Your task to perform on an android device: Add logitech g pro to the cart on amazon, then select checkout. Image 0: 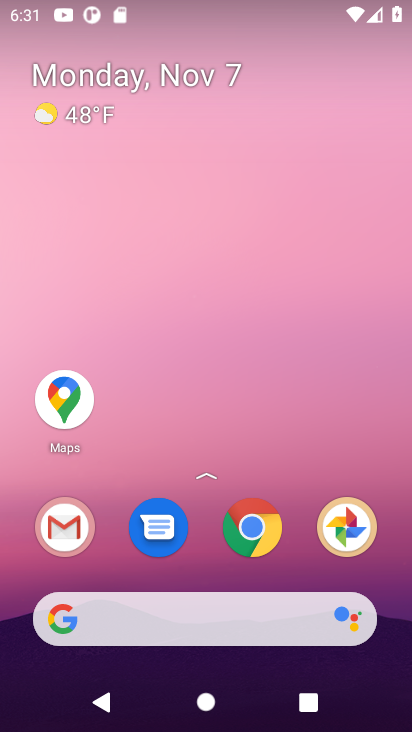
Step 0: click (244, 513)
Your task to perform on an android device: Add logitech g pro to the cart on amazon, then select checkout. Image 1: 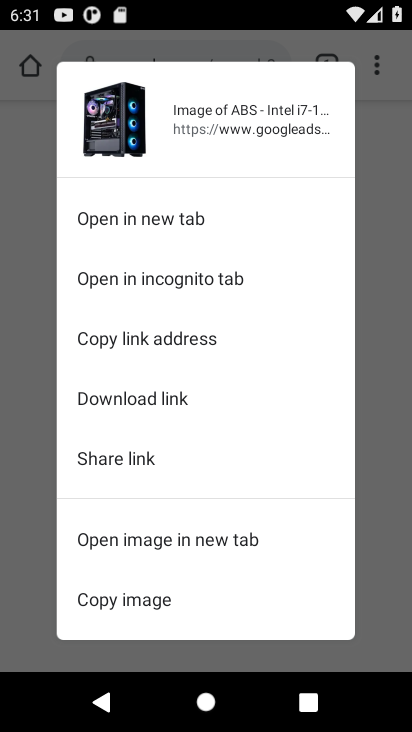
Step 1: click (35, 165)
Your task to perform on an android device: Add logitech g pro to the cart on amazon, then select checkout. Image 2: 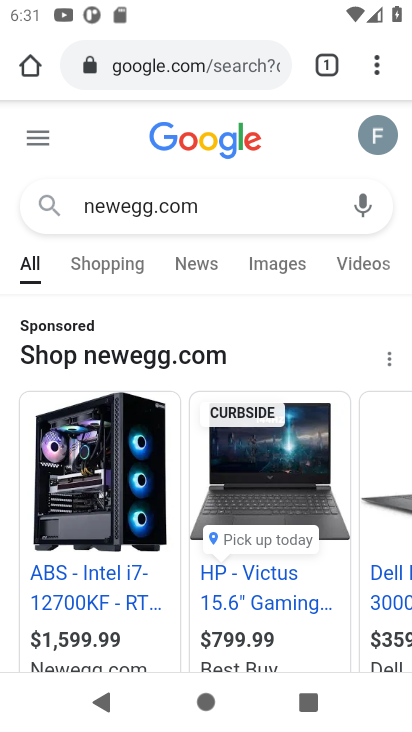
Step 2: click (179, 52)
Your task to perform on an android device: Add logitech g pro to the cart on amazon, then select checkout. Image 3: 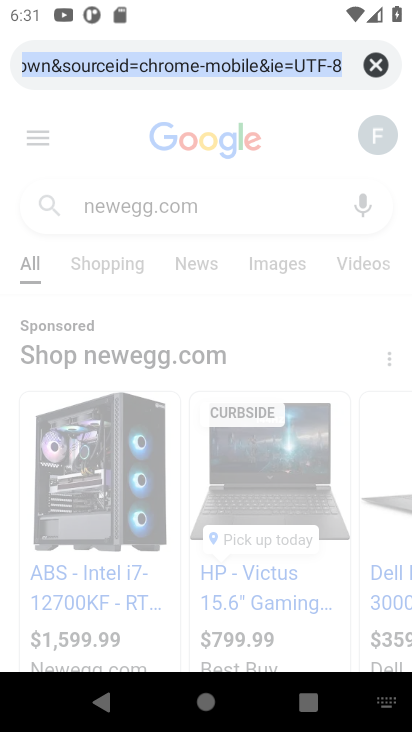
Step 3: type "amazon"
Your task to perform on an android device: Add logitech g pro to the cart on amazon, then select checkout. Image 4: 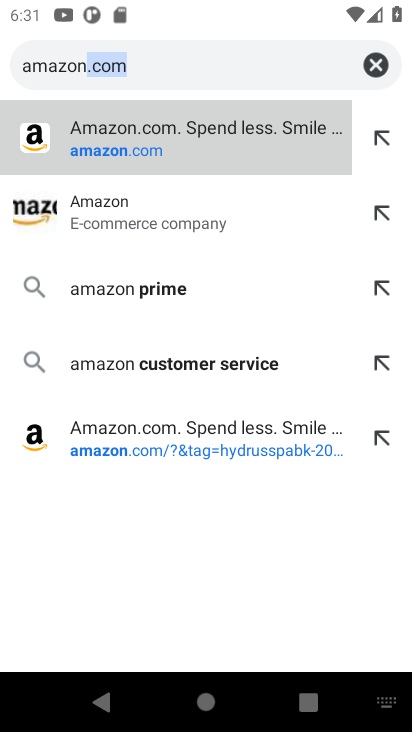
Step 4: click (165, 133)
Your task to perform on an android device: Add logitech g pro to the cart on amazon, then select checkout. Image 5: 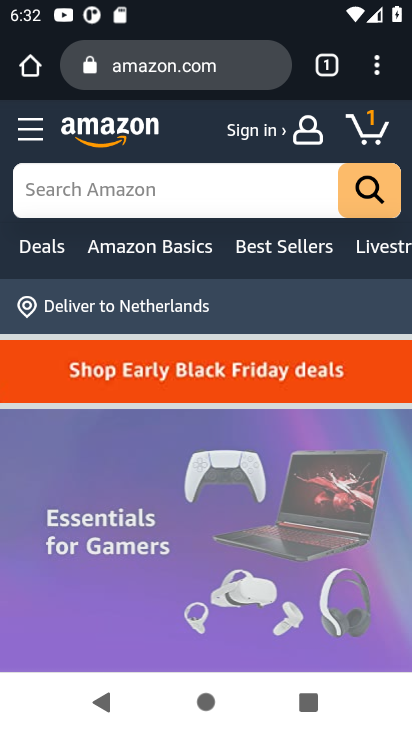
Step 5: click (145, 194)
Your task to perform on an android device: Add logitech g pro to the cart on amazon, then select checkout. Image 6: 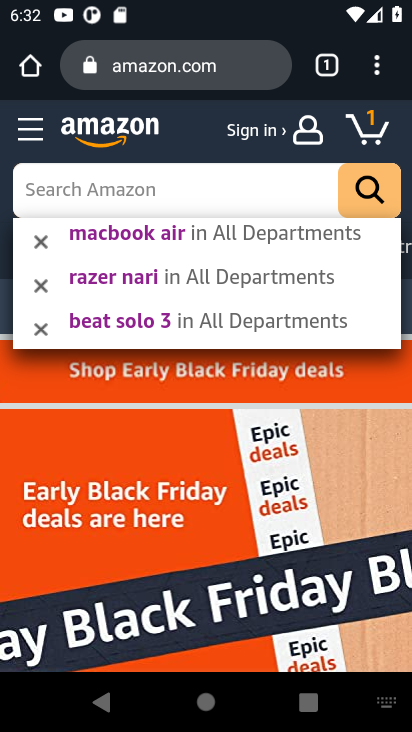
Step 6: type "logitech g pro"
Your task to perform on an android device: Add logitech g pro to the cart on amazon, then select checkout. Image 7: 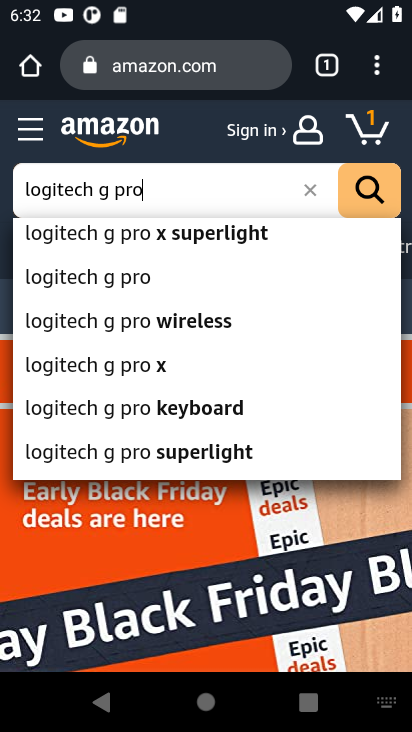
Step 7: click (130, 281)
Your task to perform on an android device: Add logitech g pro to the cart on amazon, then select checkout. Image 8: 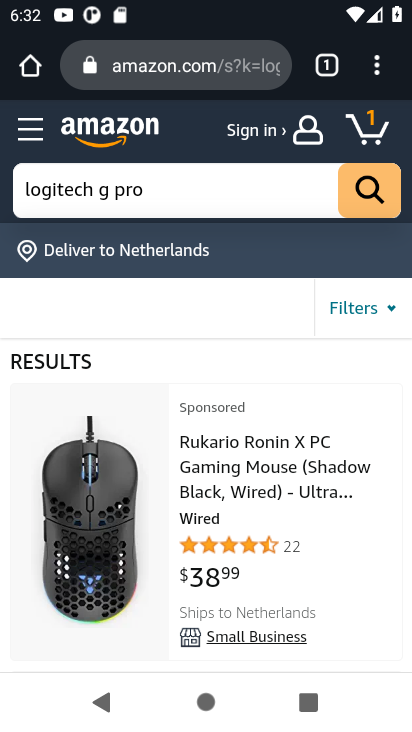
Step 8: drag from (181, 526) to (133, 281)
Your task to perform on an android device: Add logitech g pro to the cart on amazon, then select checkout. Image 9: 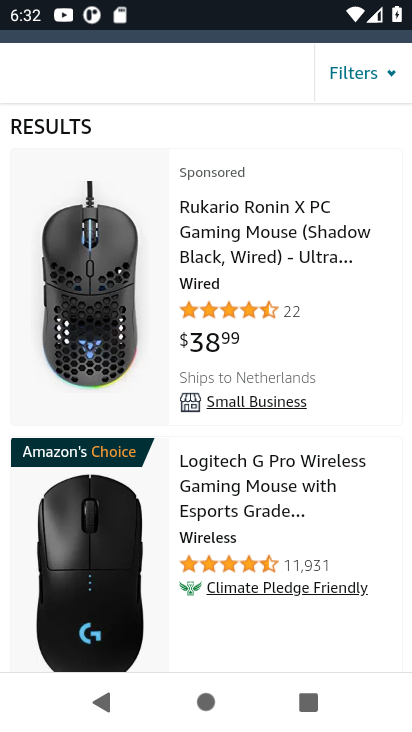
Step 9: click (59, 609)
Your task to perform on an android device: Add logitech g pro to the cart on amazon, then select checkout. Image 10: 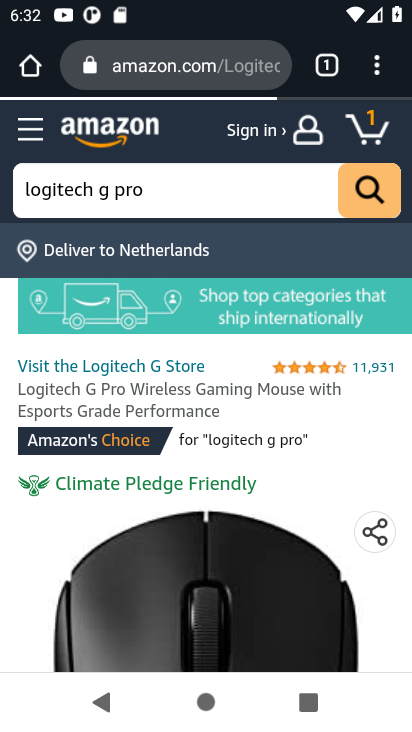
Step 10: task complete